Your task to perform on an android device: change your default location settings in chrome Image 0: 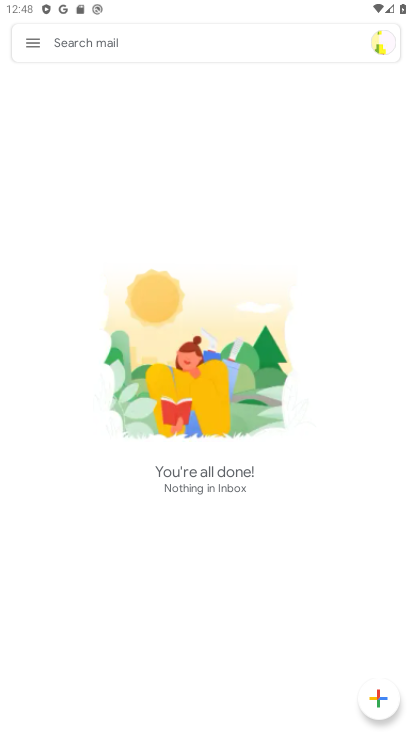
Step 0: click (36, 44)
Your task to perform on an android device: change your default location settings in chrome Image 1: 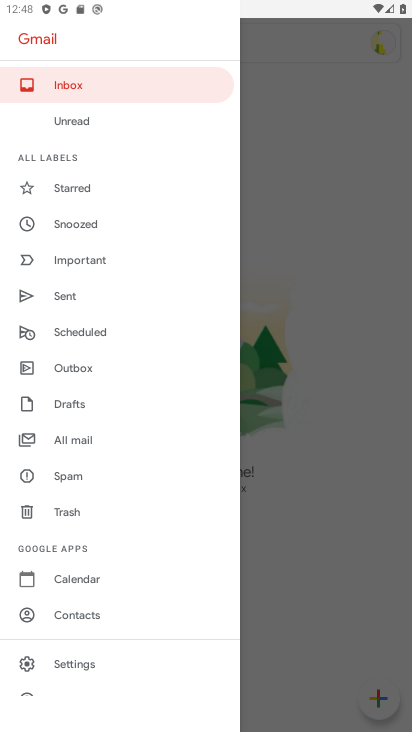
Step 1: press home button
Your task to perform on an android device: change your default location settings in chrome Image 2: 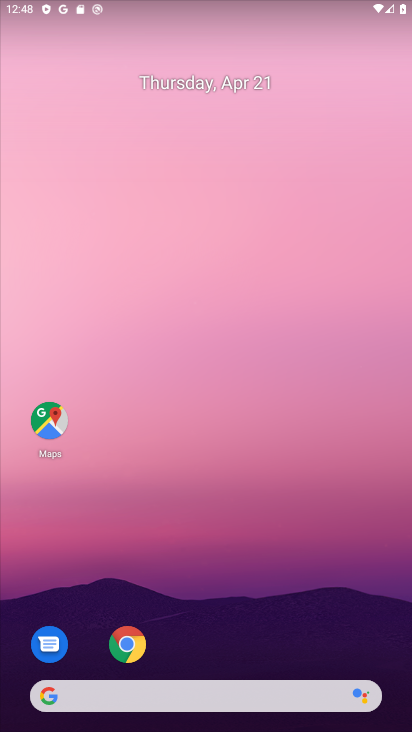
Step 2: click (131, 647)
Your task to perform on an android device: change your default location settings in chrome Image 3: 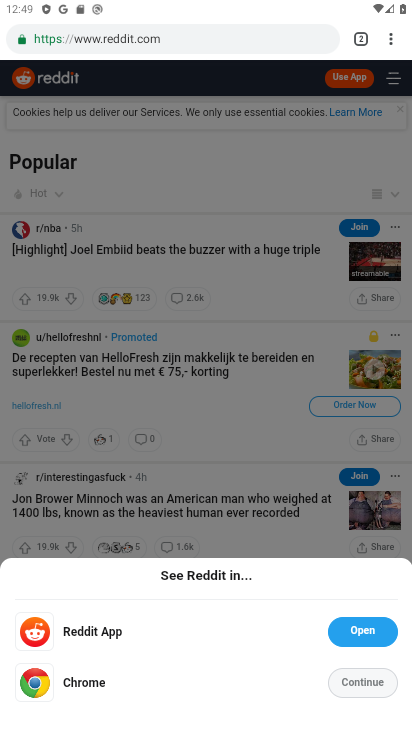
Step 3: click (361, 675)
Your task to perform on an android device: change your default location settings in chrome Image 4: 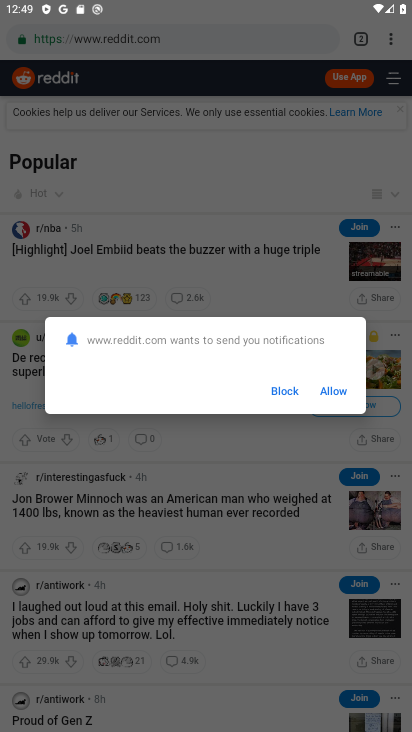
Step 4: click (280, 401)
Your task to perform on an android device: change your default location settings in chrome Image 5: 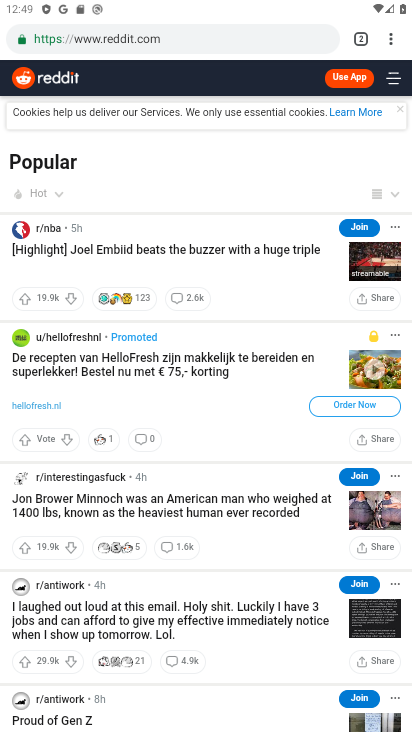
Step 5: click (392, 38)
Your task to perform on an android device: change your default location settings in chrome Image 6: 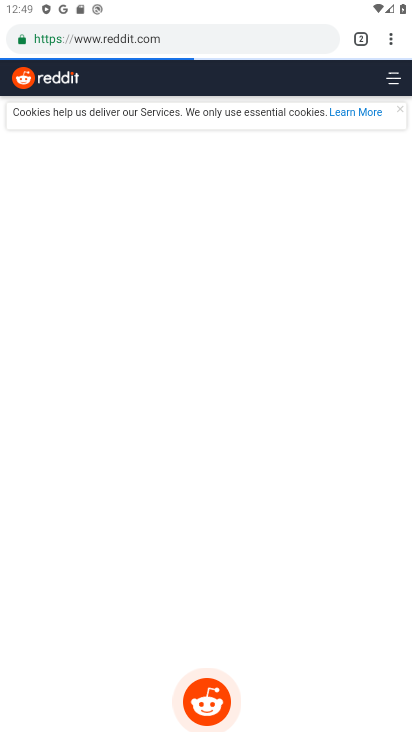
Step 6: click (392, 38)
Your task to perform on an android device: change your default location settings in chrome Image 7: 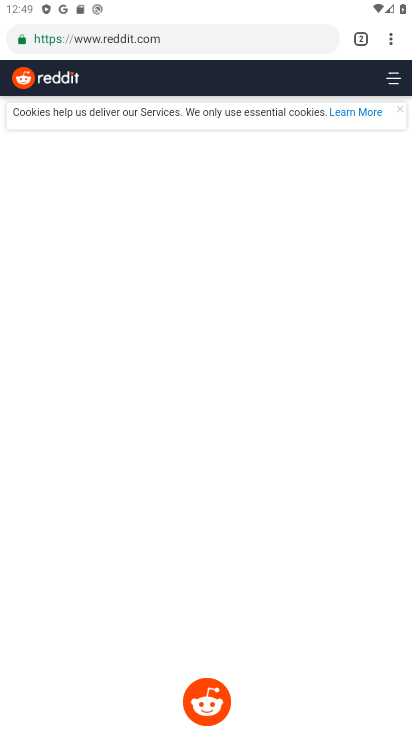
Step 7: drag from (392, 38) to (266, 513)
Your task to perform on an android device: change your default location settings in chrome Image 8: 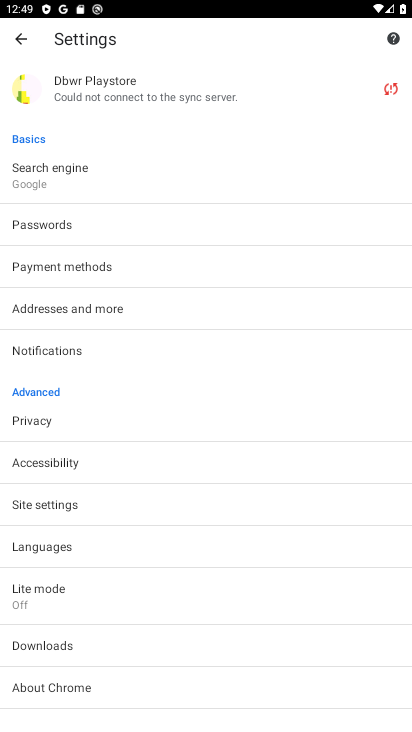
Step 8: click (243, 500)
Your task to perform on an android device: change your default location settings in chrome Image 9: 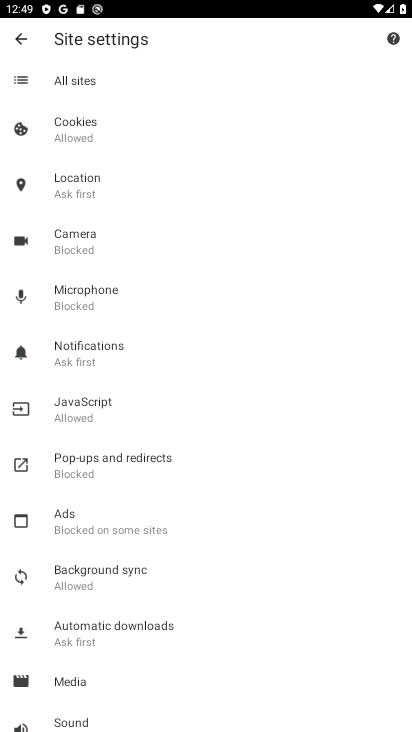
Step 9: click (186, 195)
Your task to perform on an android device: change your default location settings in chrome Image 10: 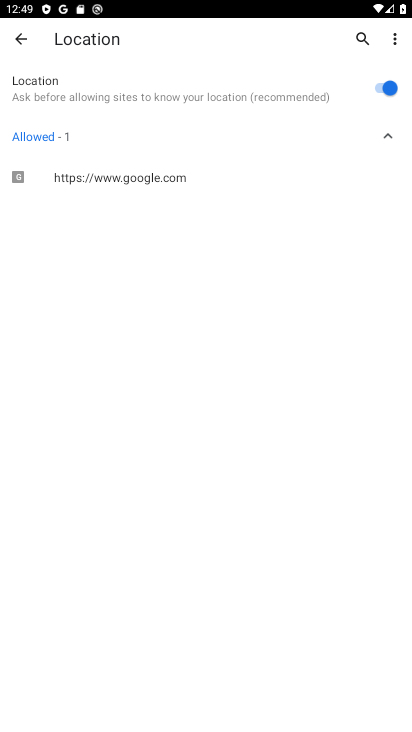
Step 10: task complete